Your task to perform on an android device: Go to settings Image 0: 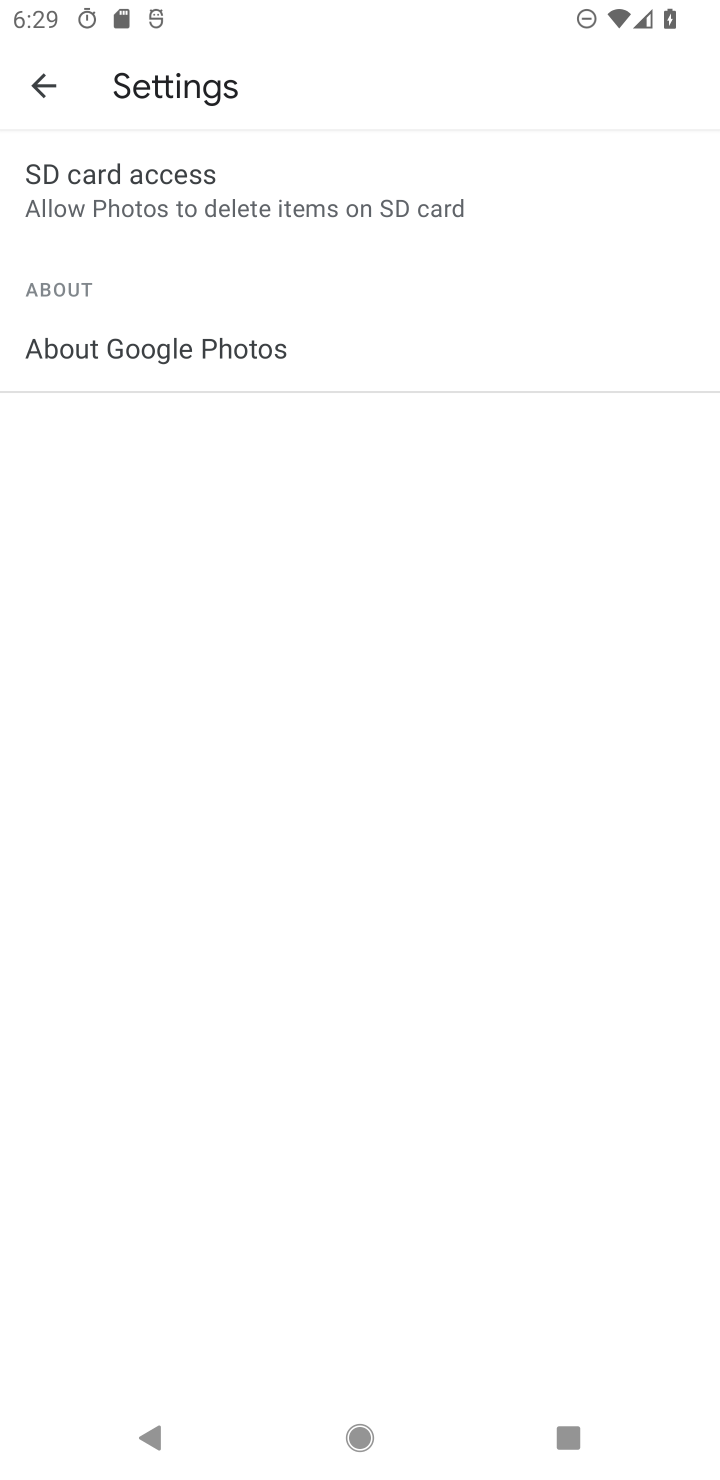
Step 0: drag from (391, 926) to (412, 539)
Your task to perform on an android device: Go to settings Image 1: 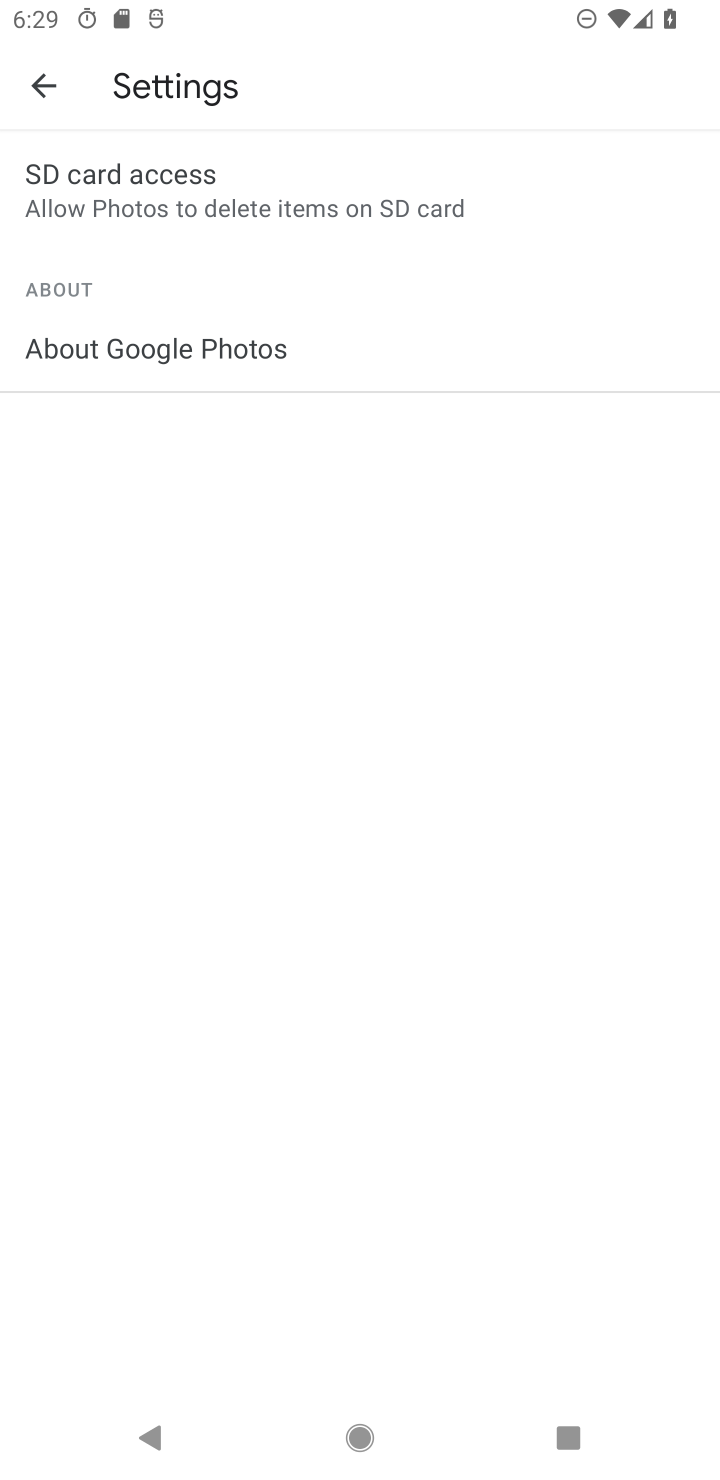
Step 1: drag from (250, 1108) to (311, 625)
Your task to perform on an android device: Go to settings Image 2: 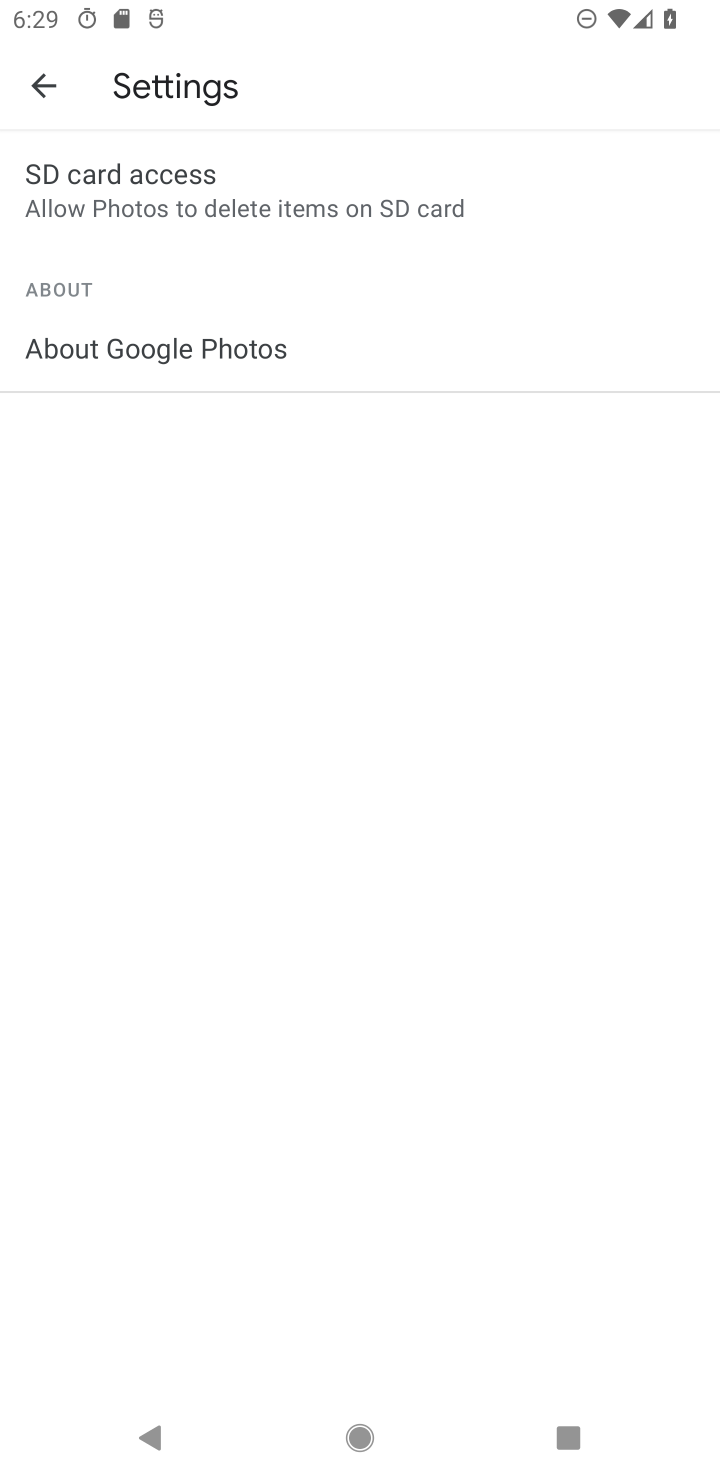
Step 2: press home button
Your task to perform on an android device: Go to settings Image 3: 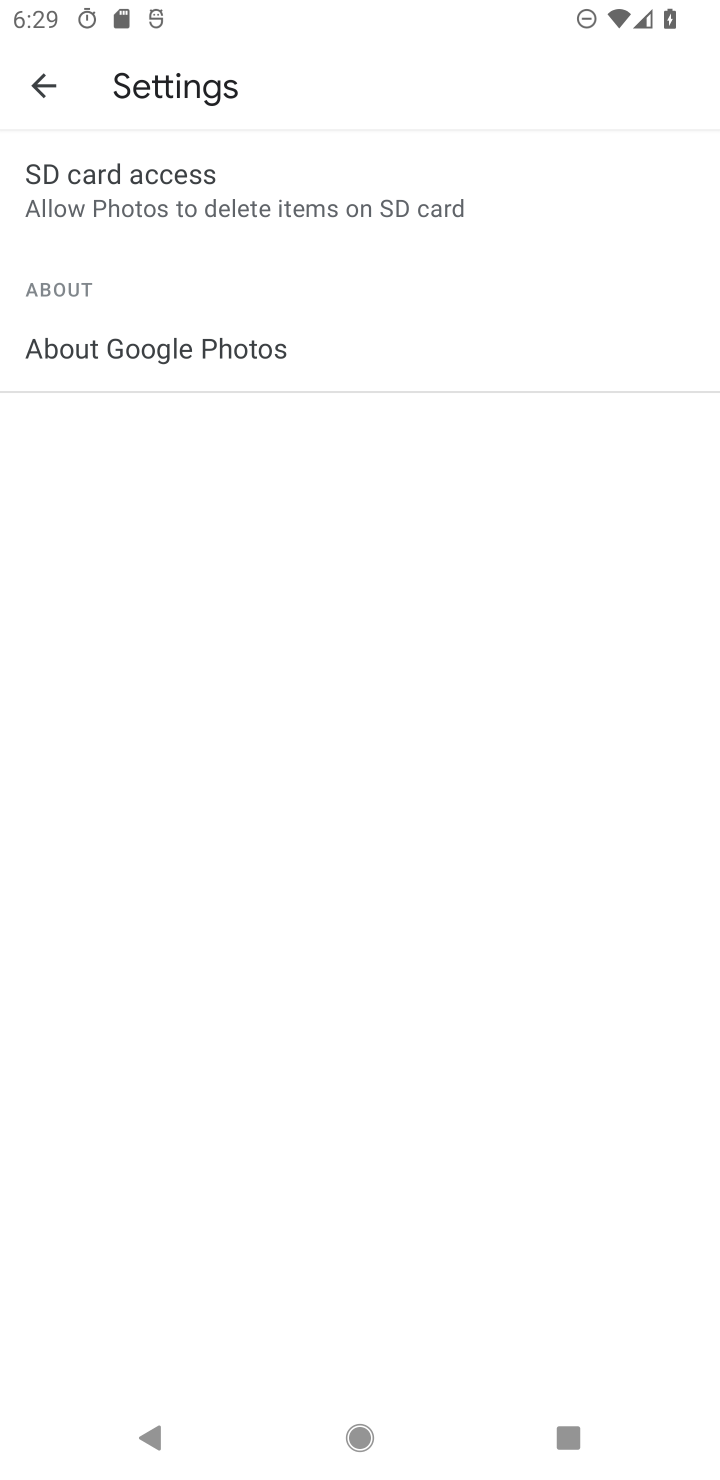
Step 3: drag from (513, 347) to (501, 222)
Your task to perform on an android device: Go to settings Image 4: 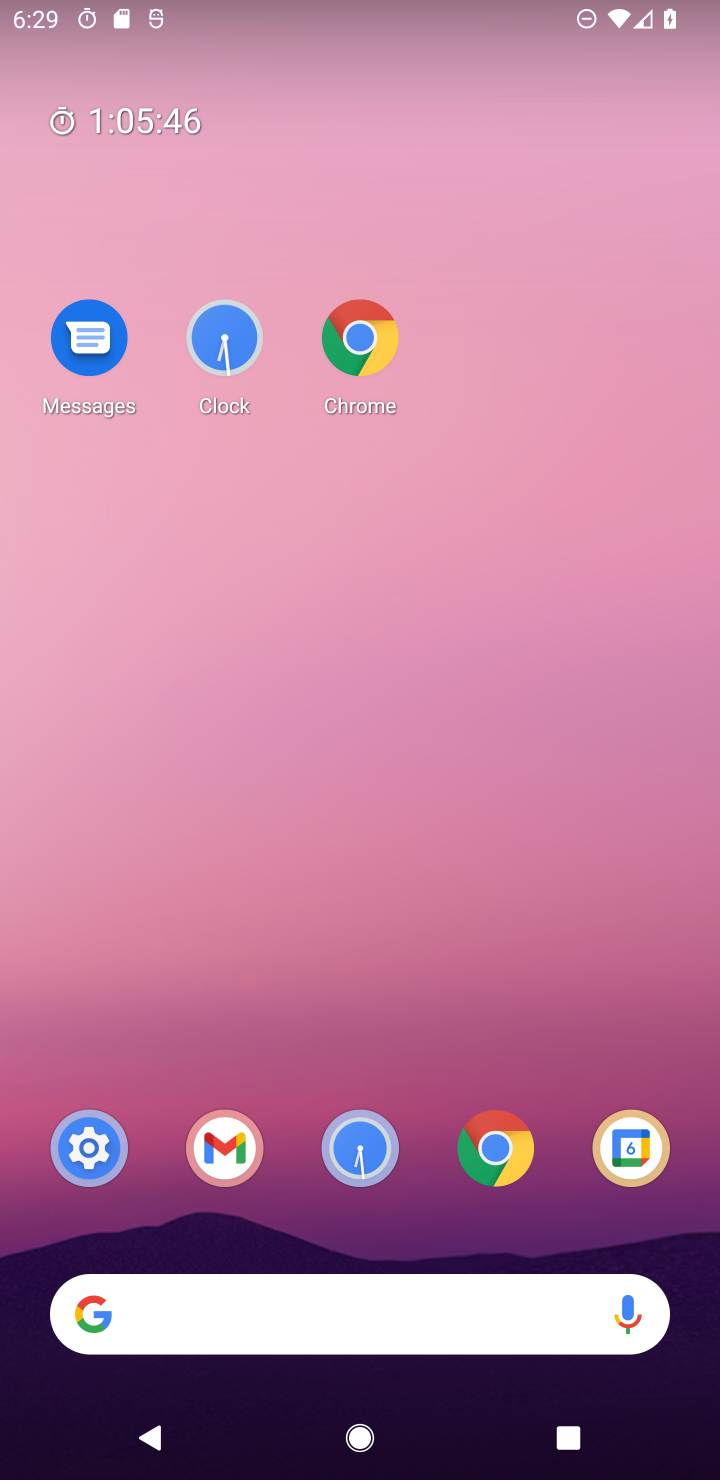
Step 4: drag from (325, 1250) to (388, 441)
Your task to perform on an android device: Go to settings Image 5: 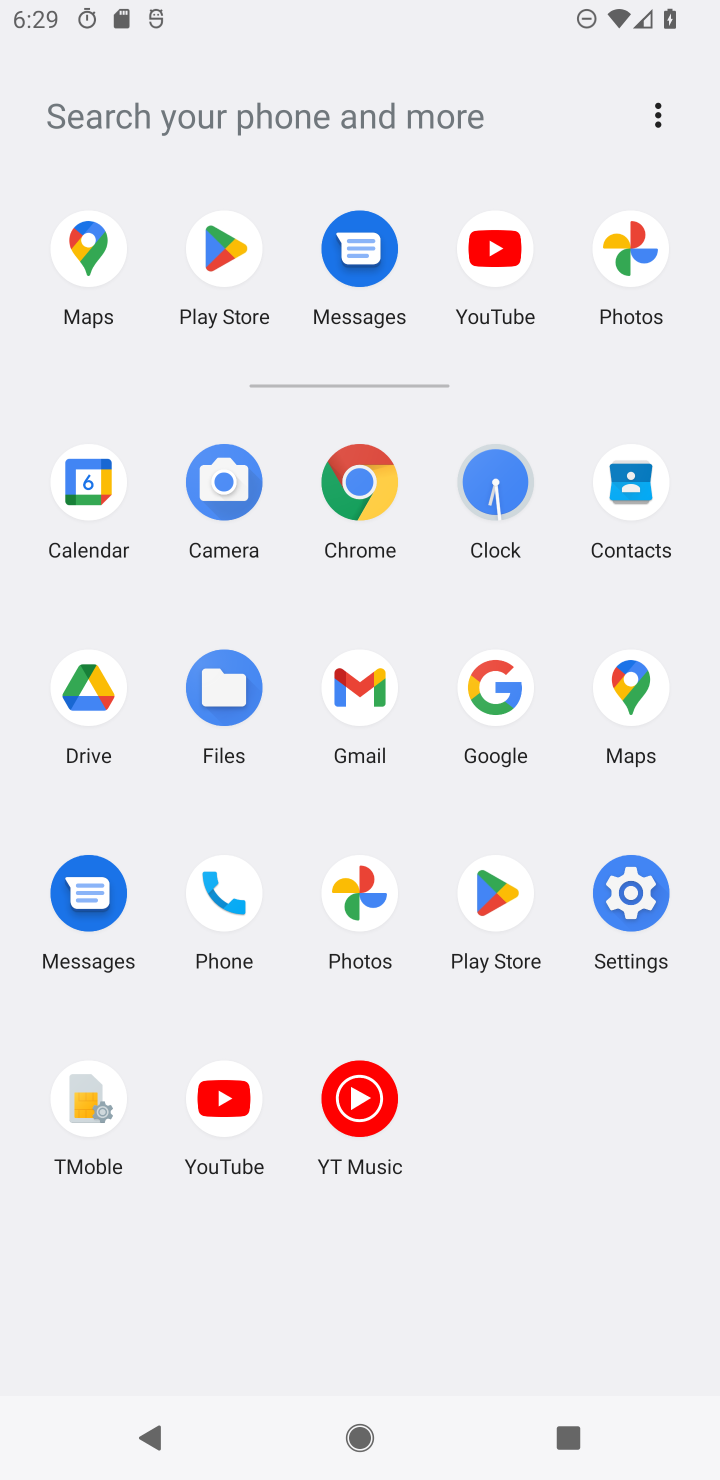
Step 5: drag from (461, 749) to (484, 557)
Your task to perform on an android device: Go to settings Image 6: 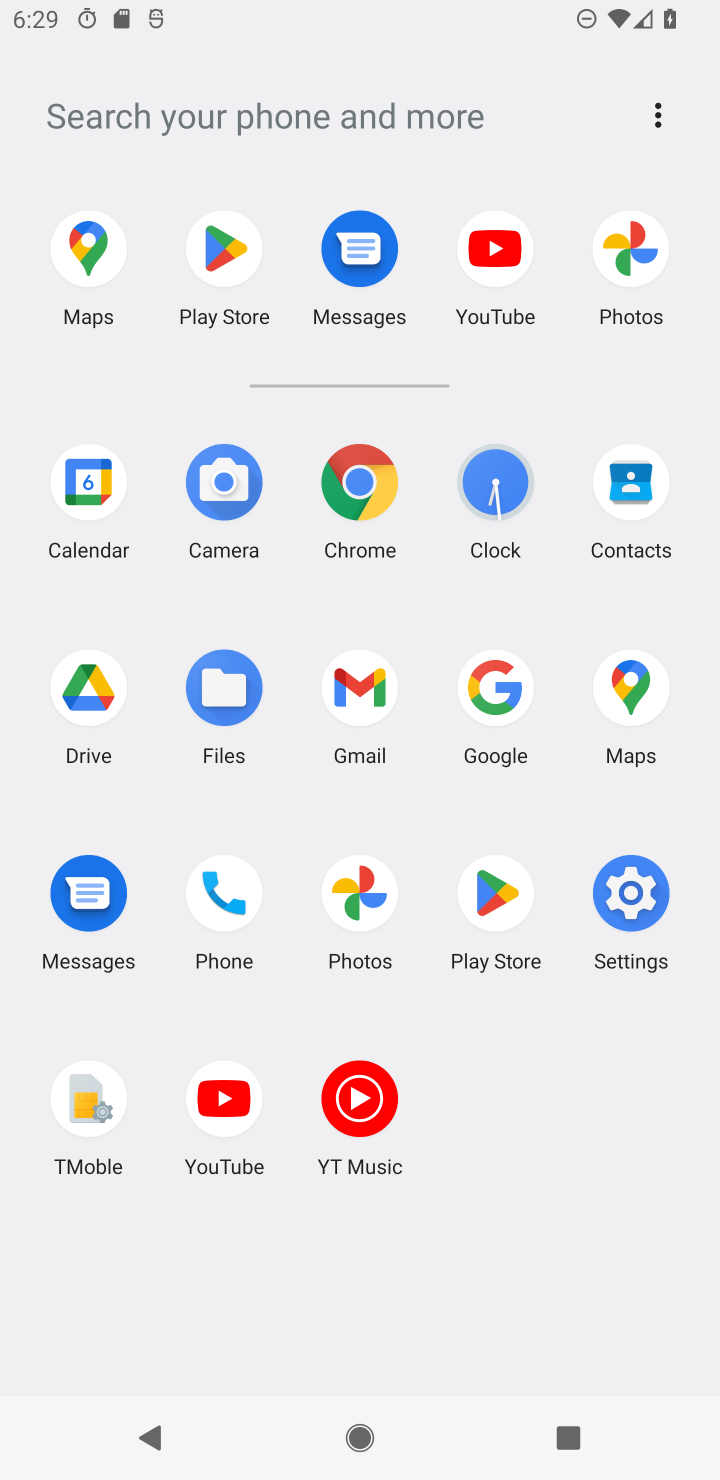
Step 6: click (638, 909)
Your task to perform on an android device: Go to settings Image 7: 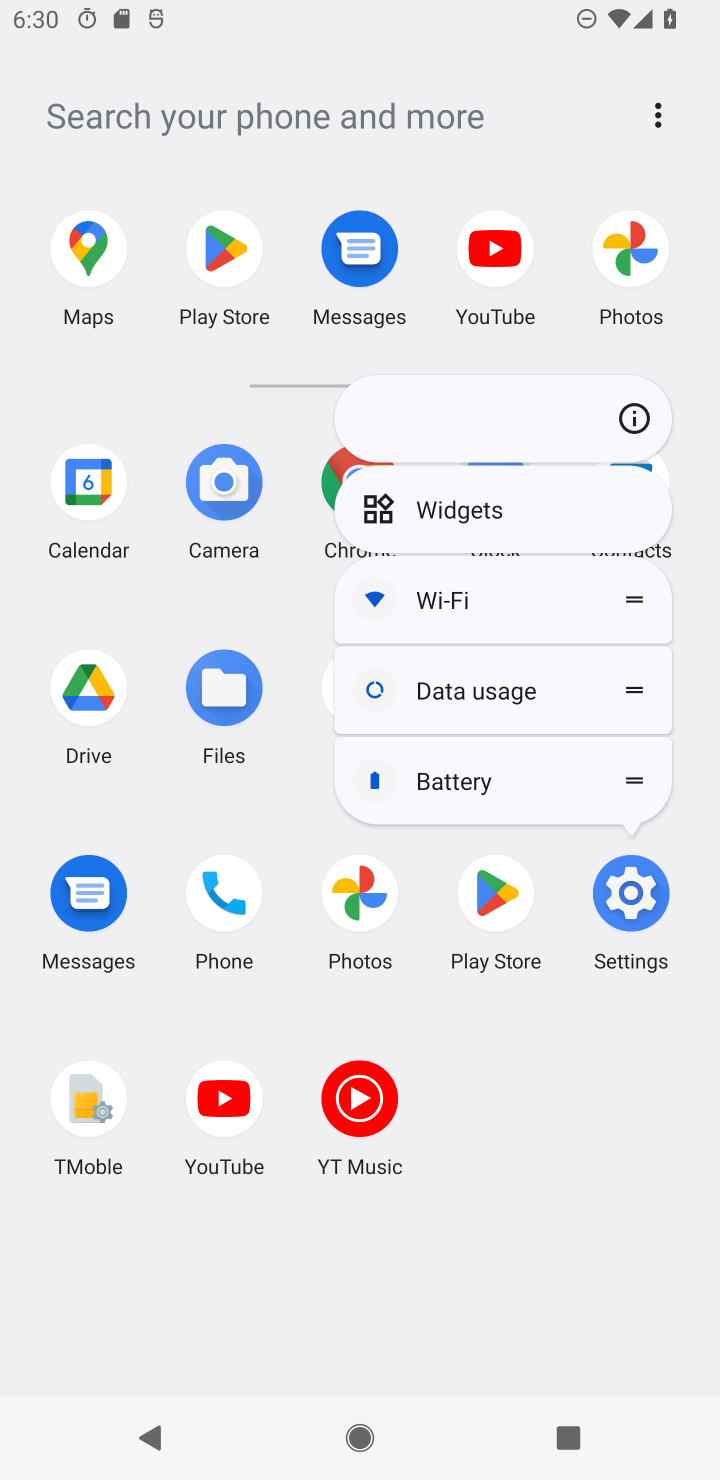
Step 7: click (633, 408)
Your task to perform on an android device: Go to settings Image 8: 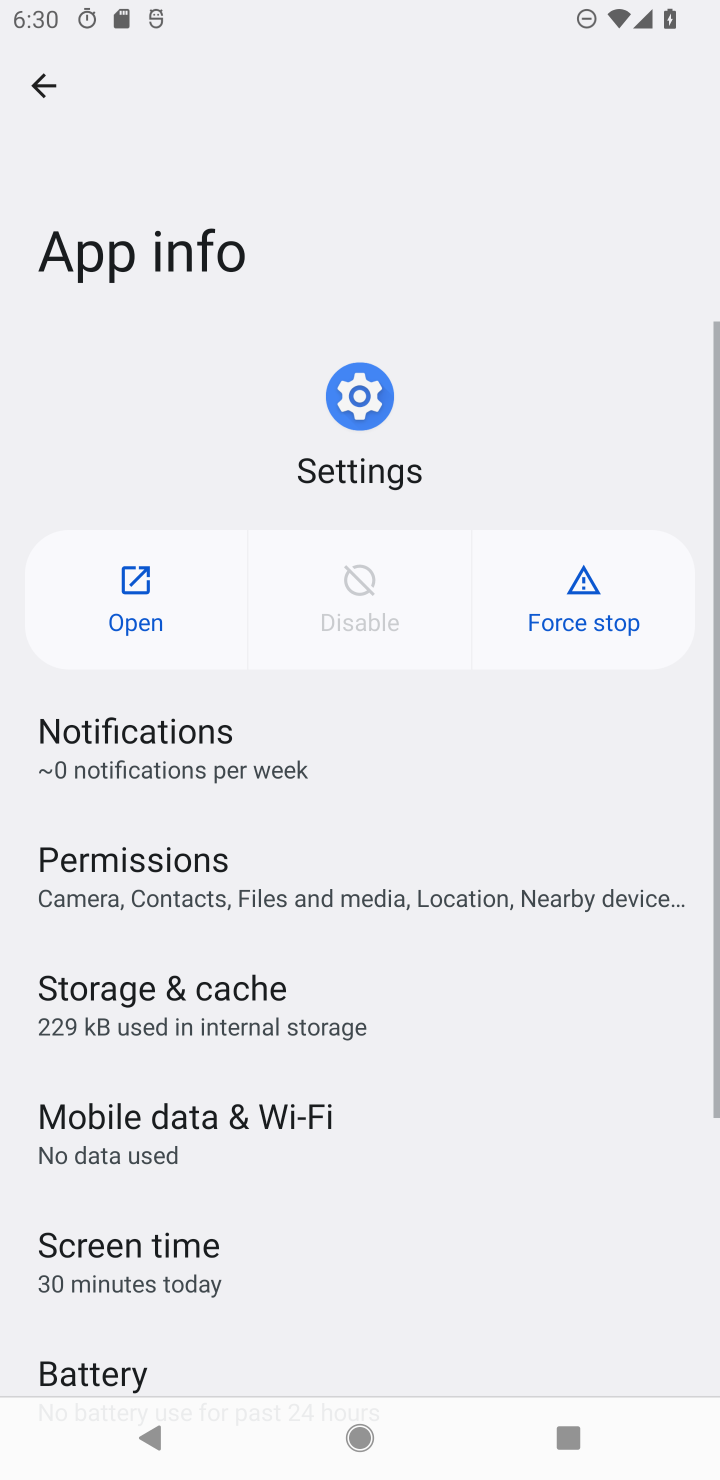
Step 8: click (152, 606)
Your task to perform on an android device: Go to settings Image 9: 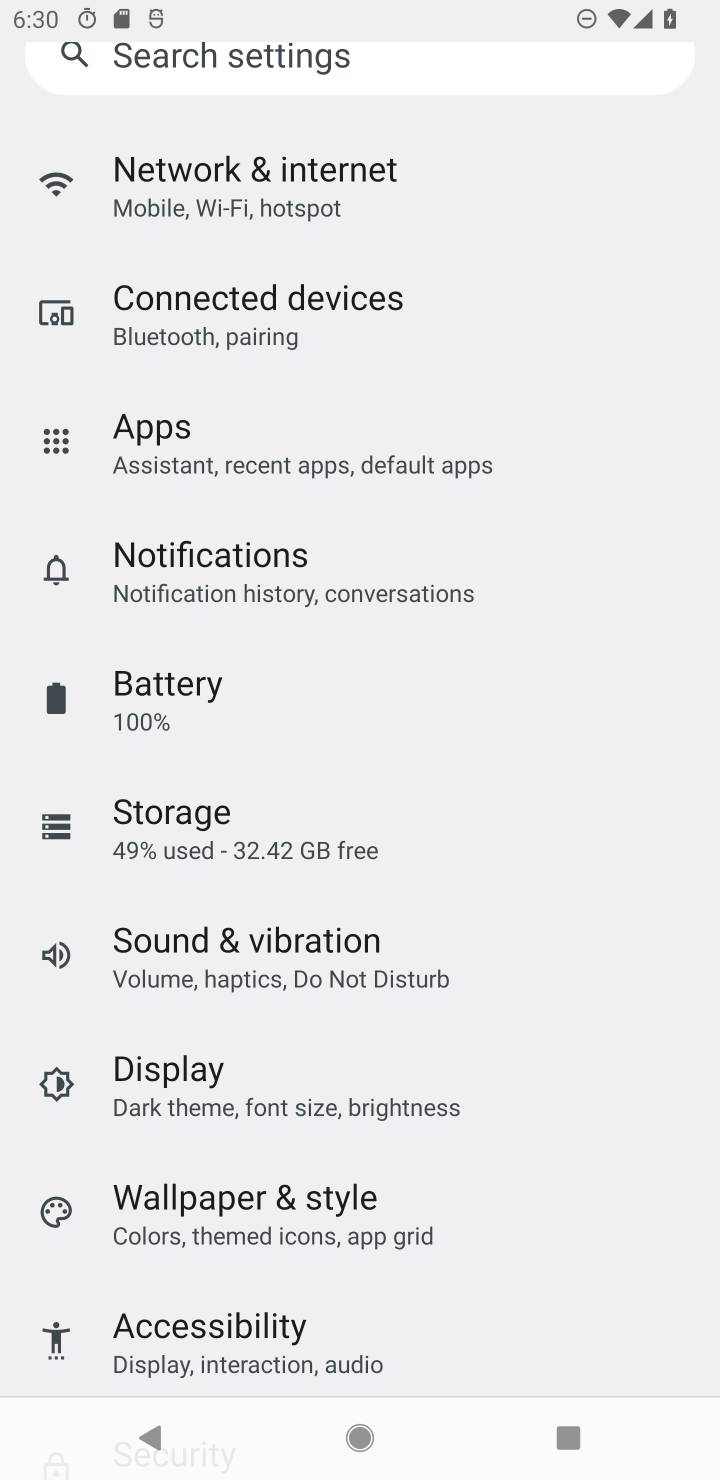
Step 9: task complete